Your task to perform on an android device: see sites visited before in the chrome app Image 0: 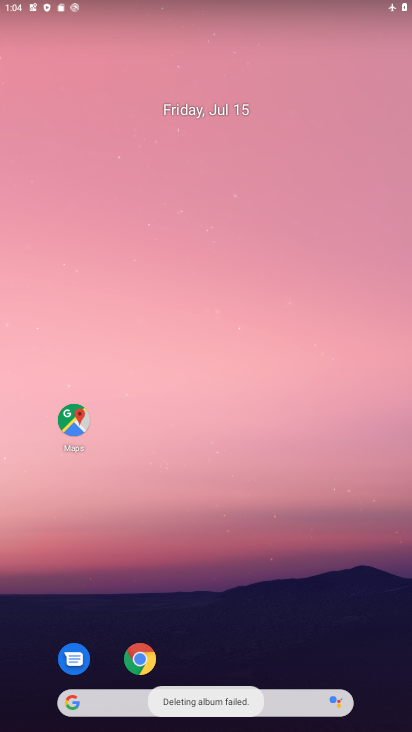
Step 0: click (157, 658)
Your task to perform on an android device: see sites visited before in the chrome app Image 1: 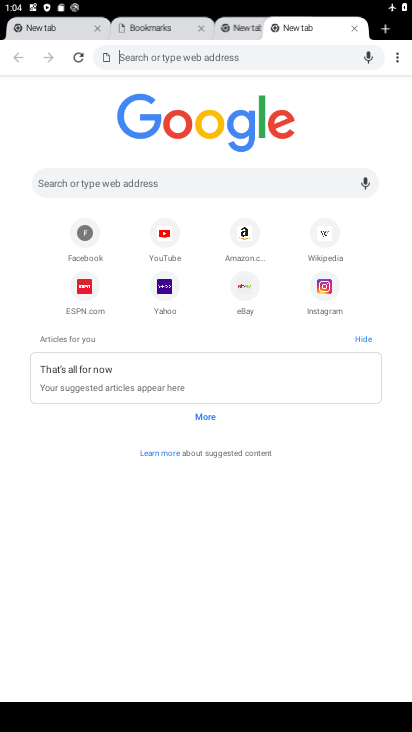
Step 1: click (395, 65)
Your task to perform on an android device: see sites visited before in the chrome app Image 2: 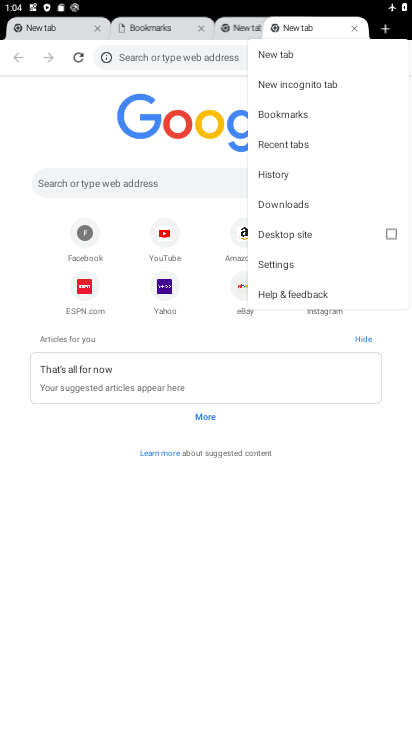
Step 2: click (338, 142)
Your task to perform on an android device: see sites visited before in the chrome app Image 3: 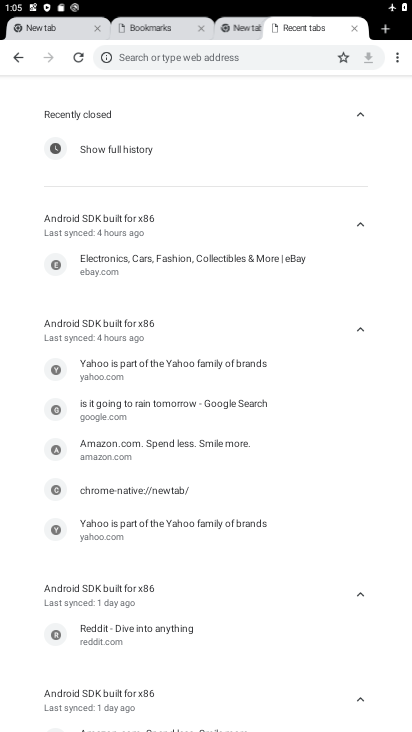
Step 3: task complete